Your task to perform on an android device: Go to CNN.com Image 0: 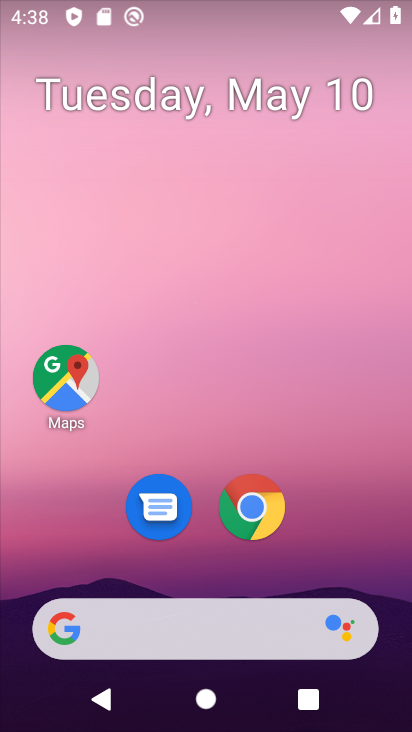
Step 0: click (263, 512)
Your task to perform on an android device: Go to CNN.com Image 1: 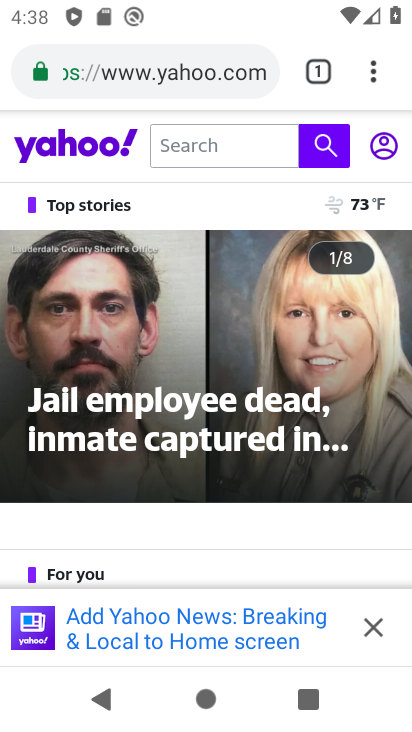
Step 1: click (223, 82)
Your task to perform on an android device: Go to CNN.com Image 2: 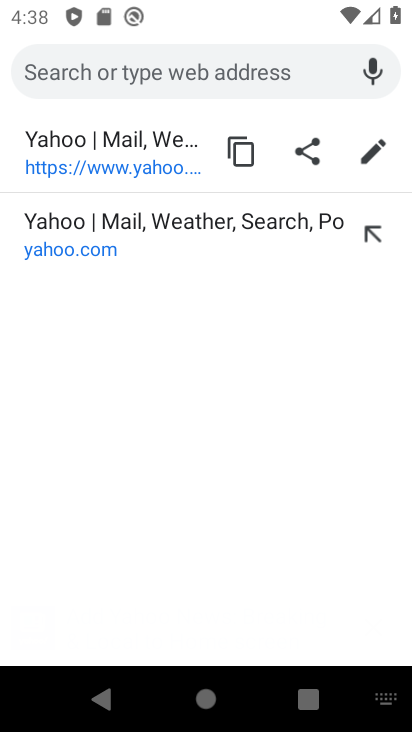
Step 2: type "CNN.com"
Your task to perform on an android device: Go to CNN.com Image 3: 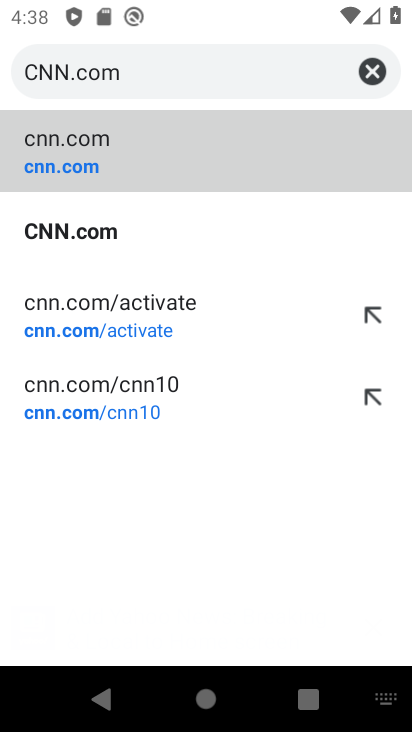
Step 3: click (134, 149)
Your task to perform on an android device: Go to CNN.com Image 4: 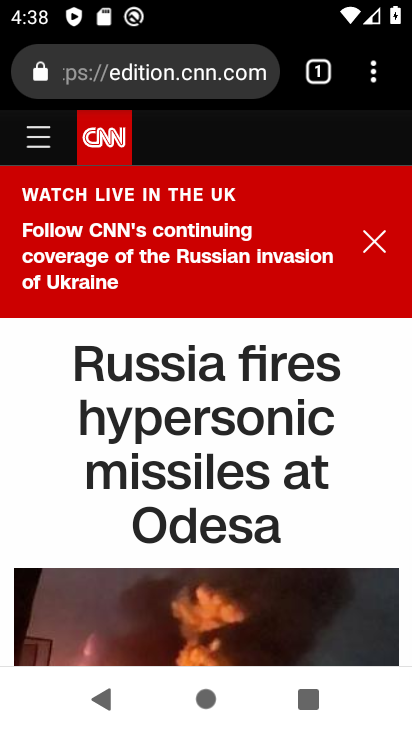
Step 4: task complete